Your task to perform on an android device: View the shopping cart on amazon. Image 0: 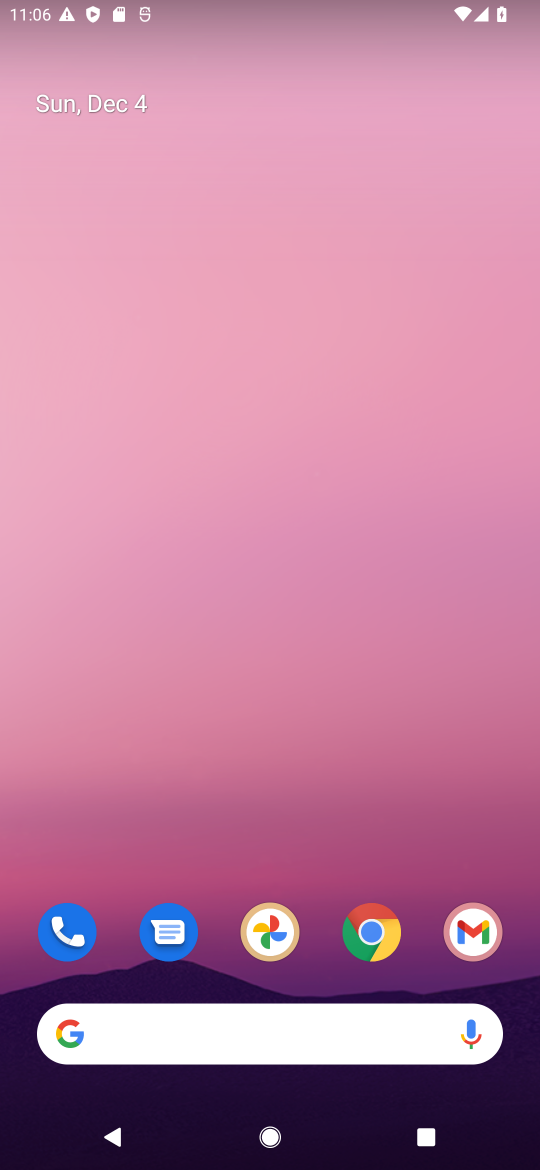
Step 0: click (357, 934)
Your task to perform on an android device: View the shopping cart on amazon. Image 1: 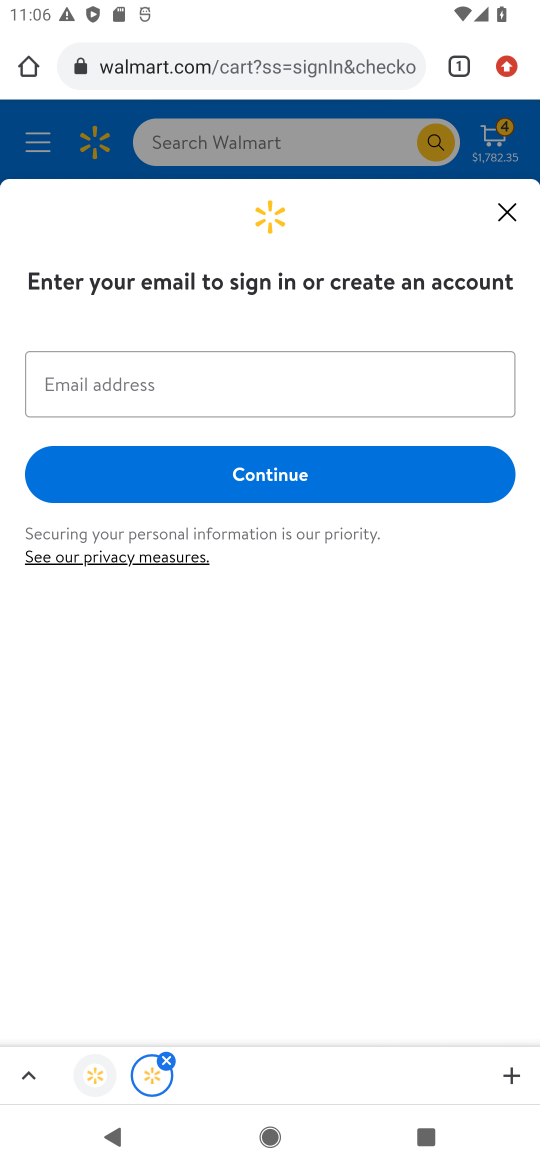
Step 1: click (259, 67)
Your task to perform on an android device: View the shopping cart on amazon. Image 2: 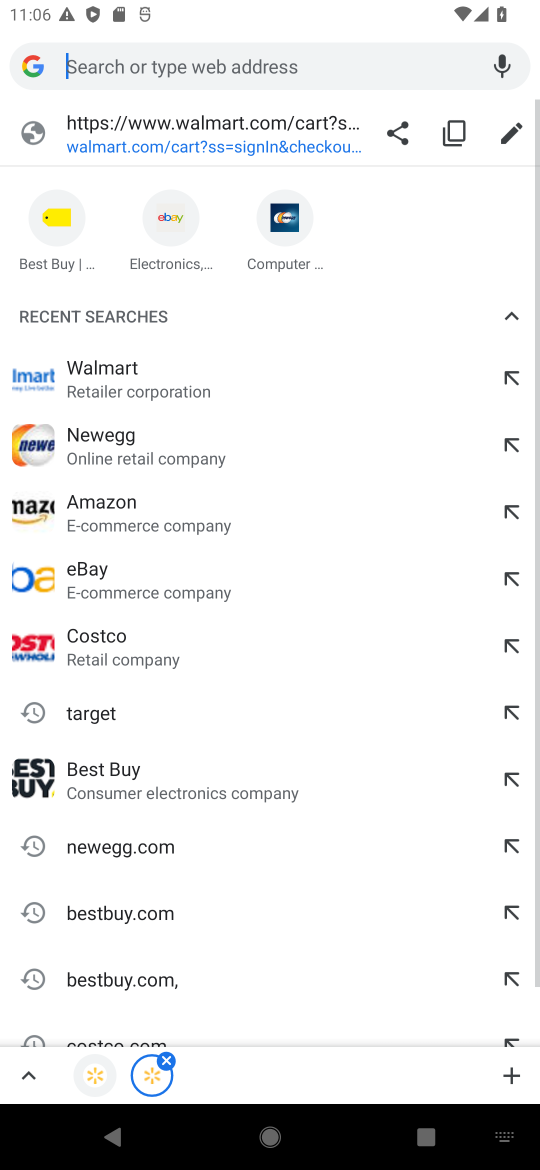
Step 2: click (181, 521)
Your task to perform on an android device: View the shopping cart on amazon. Image 3: 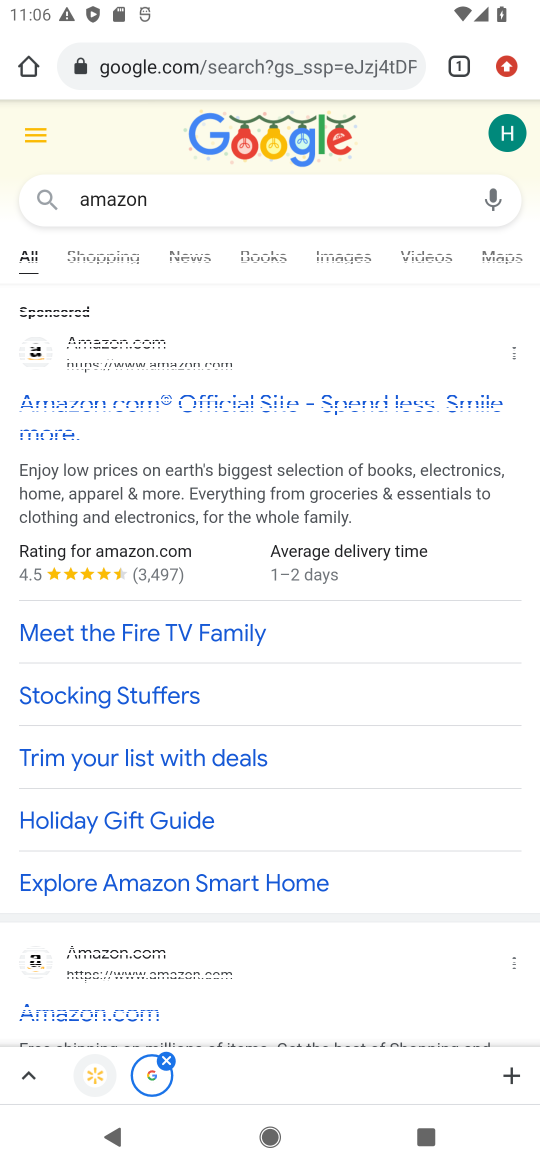
Step 3: click (218, 406)
Your task to perform on an android device: View the shopping cart on amazon. Image 4: 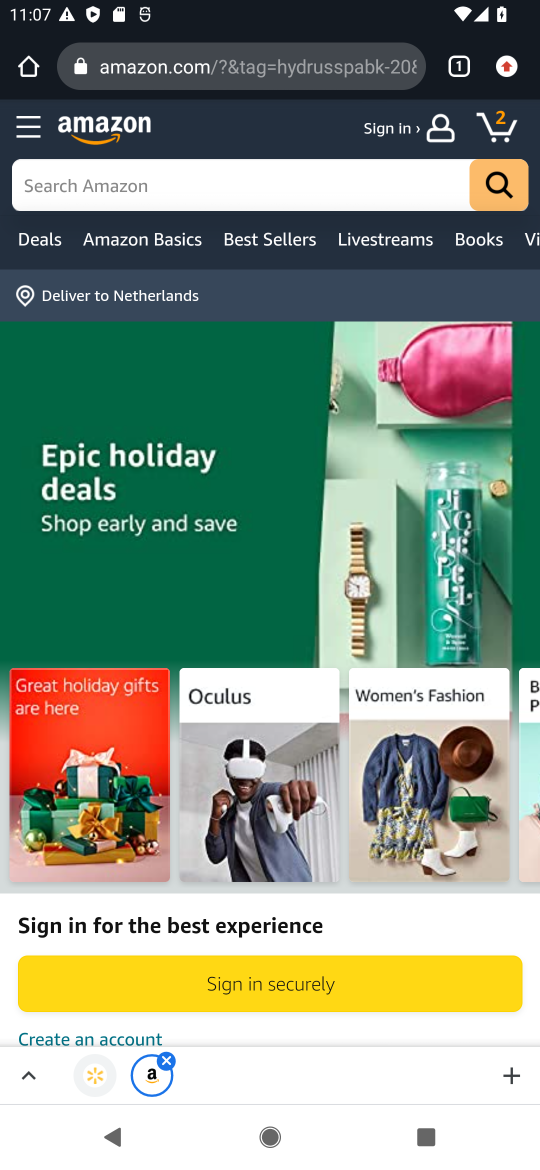
Step 4: click (271, 186)
Your task to perform on an android device: View the shopping cart on amazon. Image 5: 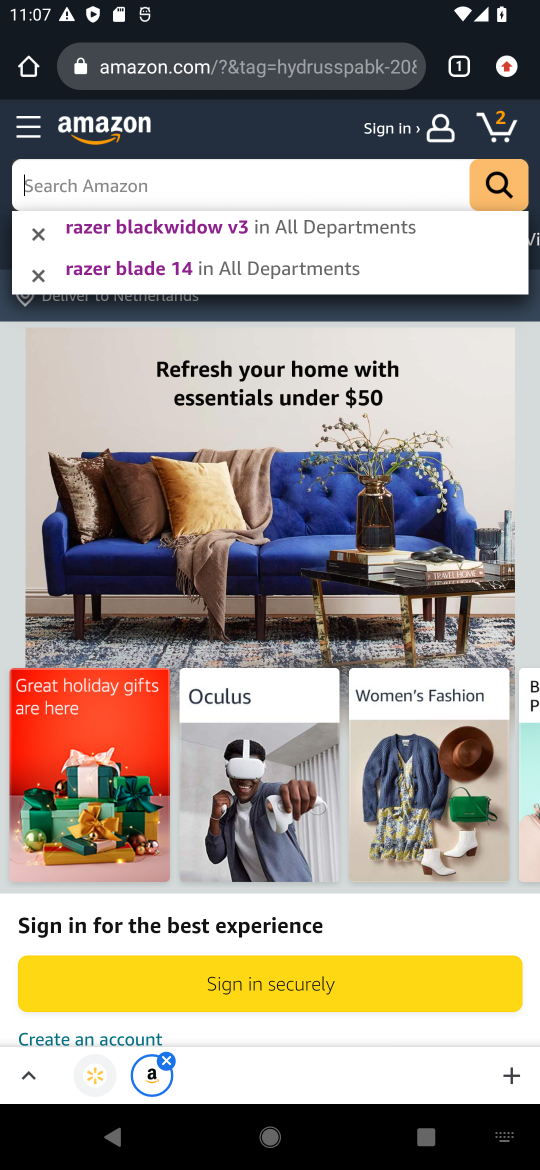
Step 5: click (491, 135)
Your task to perform on an android device: View the shopping cart on amazon. Image 6: 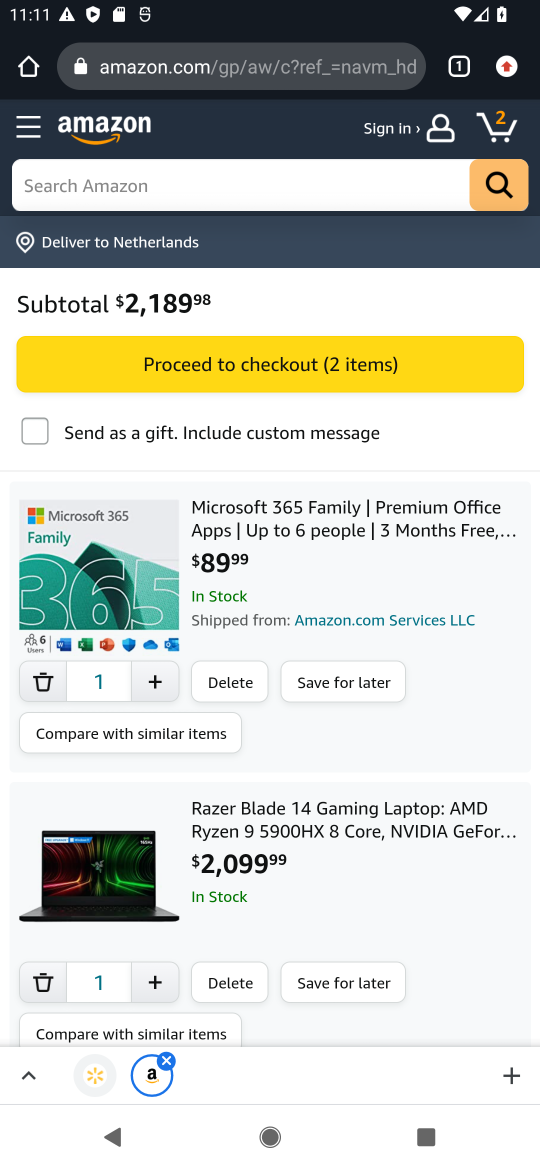
Step 6: task complete